Your task to perform on an android device: Go to Google Image 0: 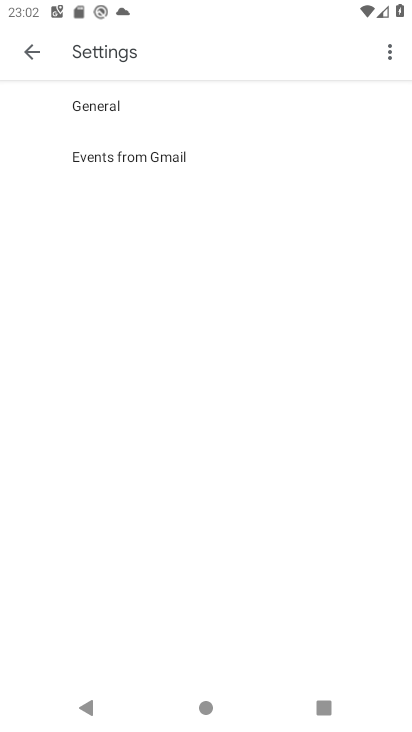
Step 0: press home button
Your task to perform on an android device: Go to Google Image 1: 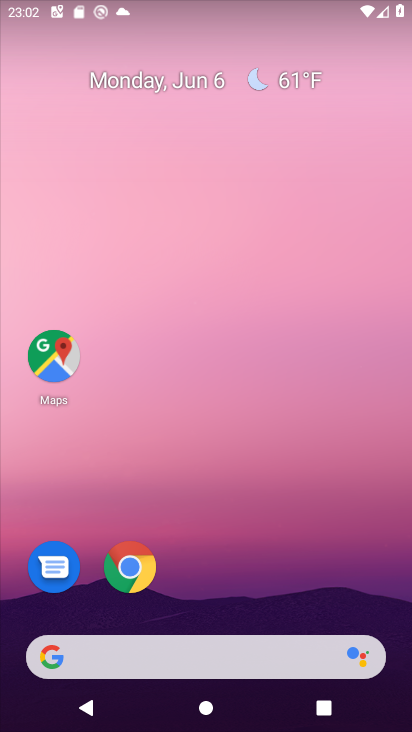
Step 1: drag from (245, 731) to (211, 156)
Your task to perform on an android device: Go to Google Image 2: 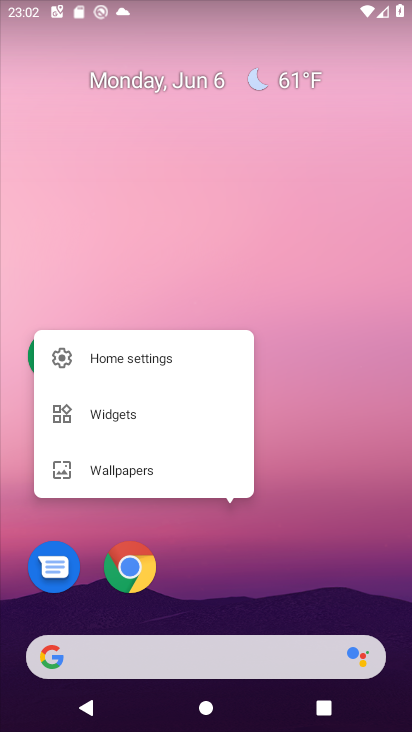
Step 2: click (291, 215)
Your task to perform on an android device: Go to Google Image 3: 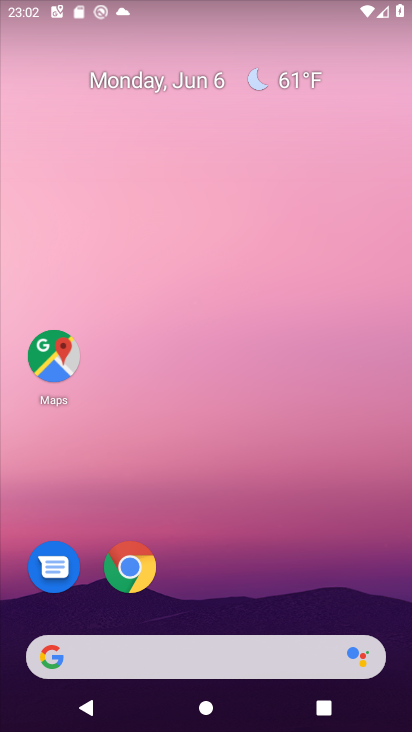
Step 3: drag from (241, 725) to (205, 50)
Your task to perform on an android device: Go to Google Image 4: 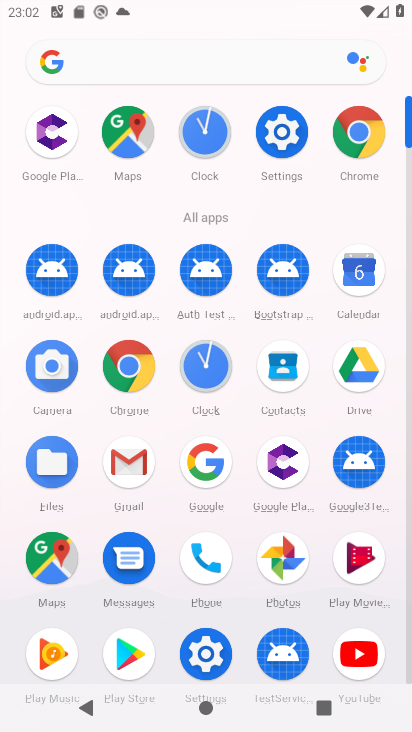
Step 4: click (204, 465)
Your task to perform on an android device: Go to Google Image 5: 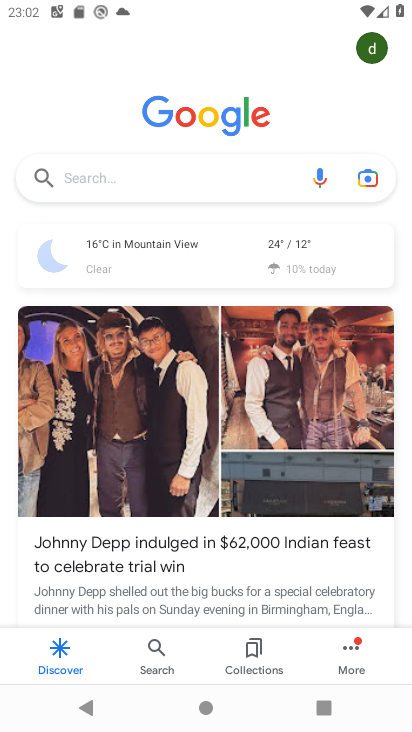
Step 5: task complete